Your task to perform on an android device: turn on translation in the chrome app Image 0: 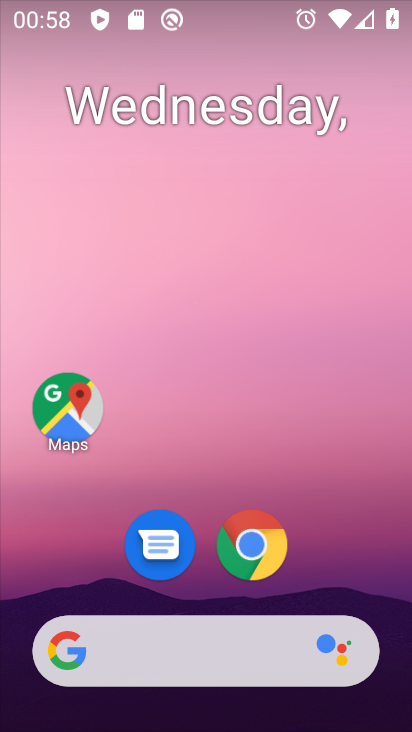
Step 0: drag from (345, 353) to (345, 76)
Your task to perform on an android device: turn on translation in the chrome app Image 1: 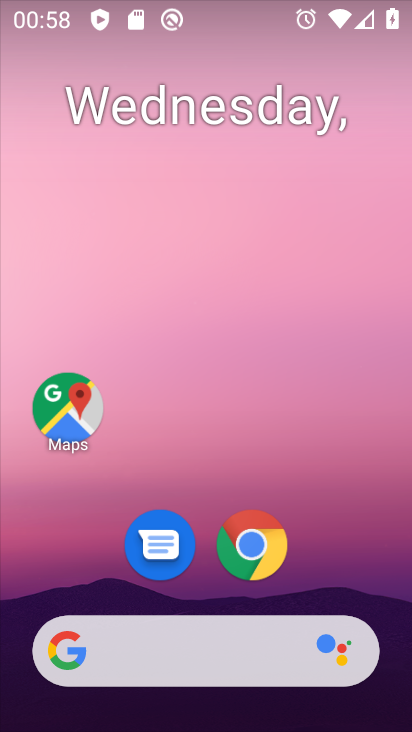
Step 1: drag from (332, 455) to (375, 73)
Your task to perform on an android device: turn on translation in the chrome app Image 2: 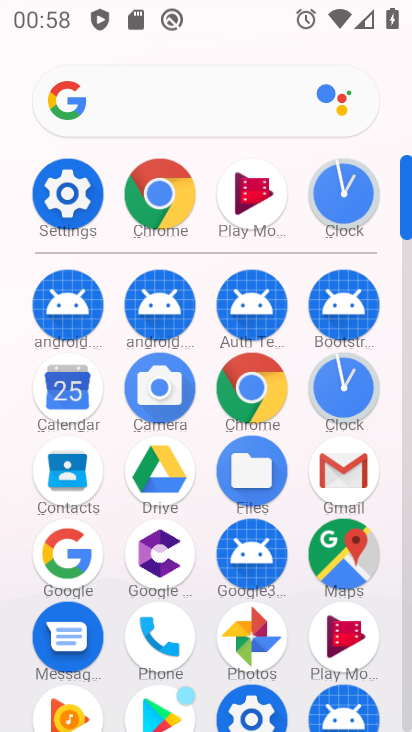
Step 2: click (169, 192)
Your task to perform on an android device: turn on translation in the chrome app Image 3: 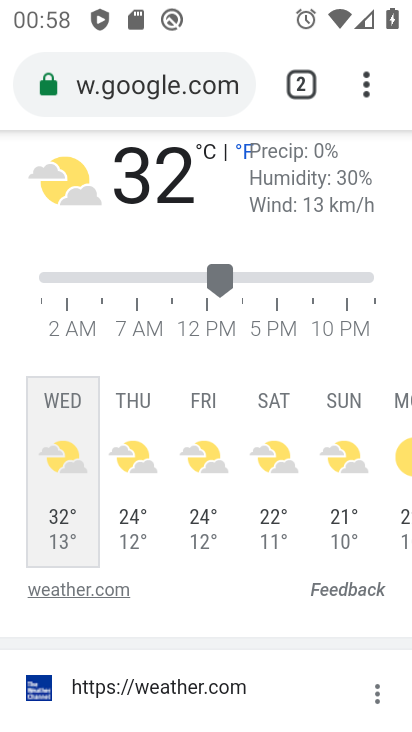
Step 3: drag from (369, 68) to (163, 619)
Your task to perform on an android device: turn on translation in the chrome app Image 4: 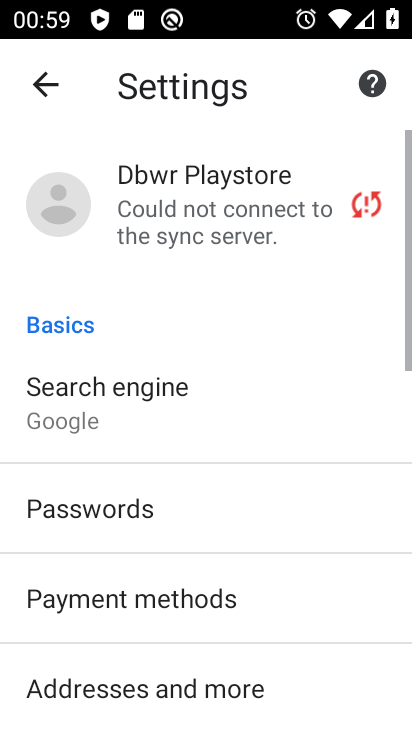
Step 4: drag from (166, 616) to (245, 254)
Your task to perform on an android device: turn on translation in the chrome app Image 5: 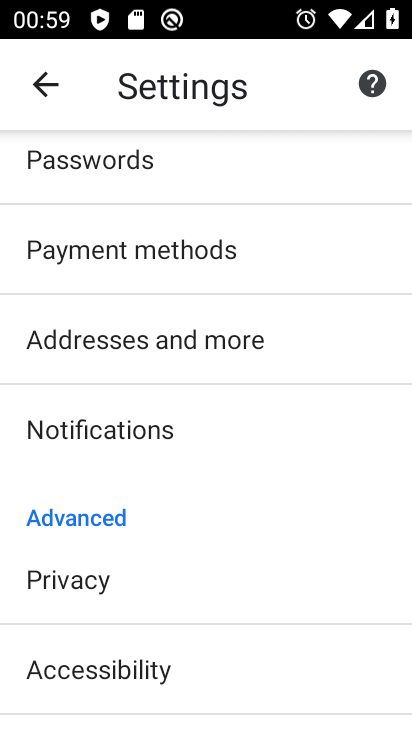
Step 5: drag from (137, 604) to (290, 146)
Your task to perform on an android device: turn on translation in the chrome app Image 6: 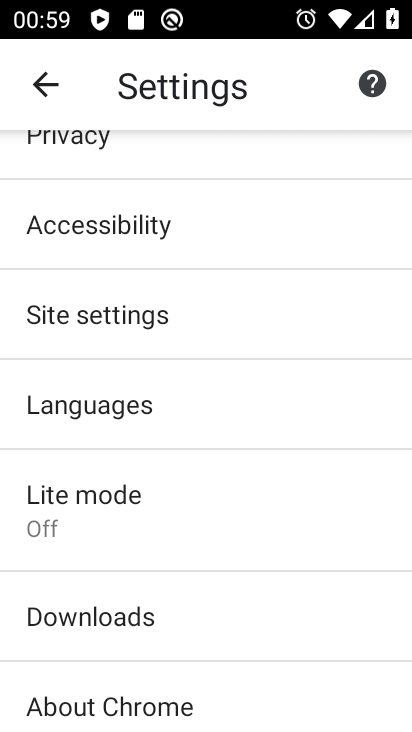
Step 6: drag from (114, 569) to (312, 209)
Your task to perform on an android device: turn on translation in the chrome app Image 7: 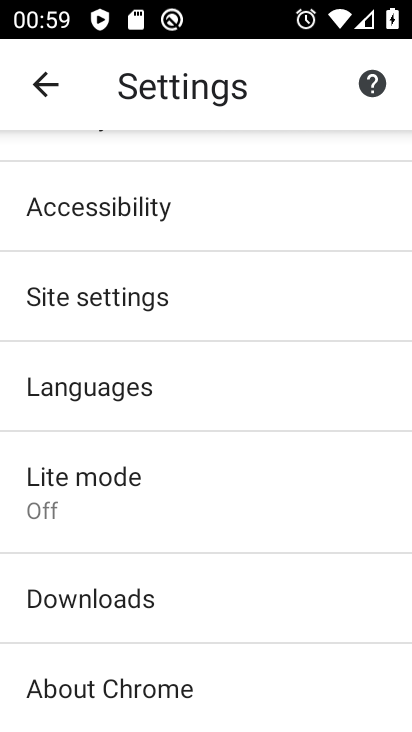
Step 7: click (138, 391)
Your task to perform on an android device: turn on translation in the chrome app Image 8: 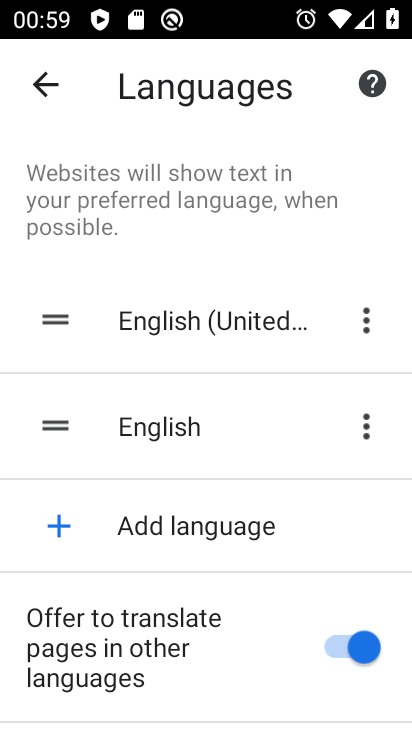
Step 8: click (363, 620)
Your task to perform on an android device: turn on translation in the chrome app Image 9: 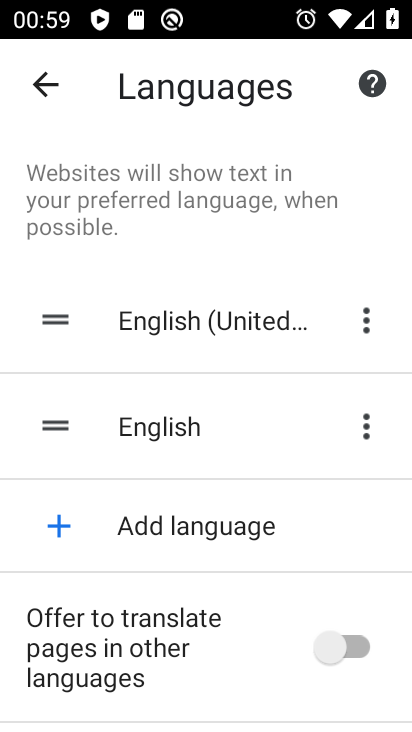
Step 9: task complete